Your task to perform on an android device: Open ESPN.com Image 0: 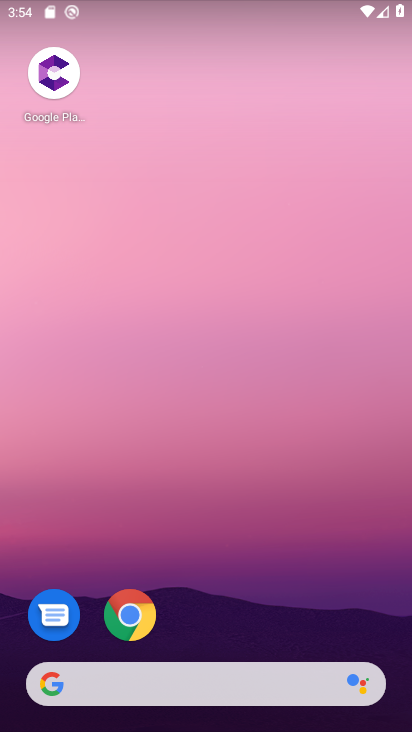
Step 0: click (125, 633)
Your task to perform on an android device: Open ESPN.com Image 1: 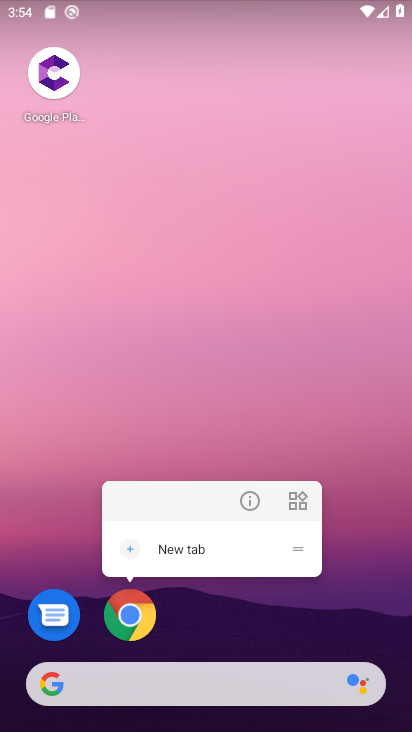
Step 1: click (125, 633)
Your task to perform on an android device: Open ESPN.com Image 2: 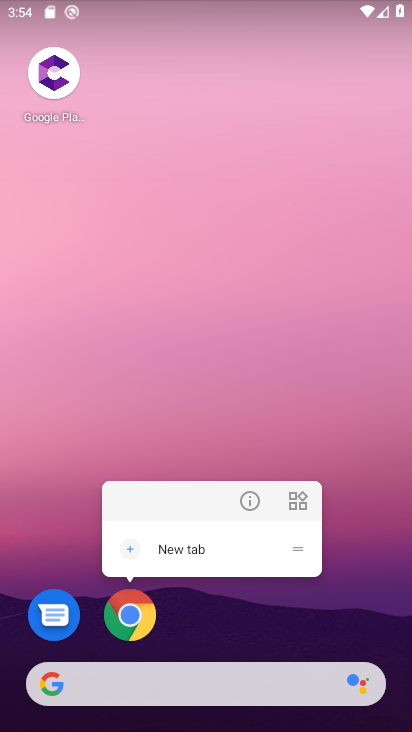
Step 2: click (132, 628)
Your task to perform on an android device: Open ESPN.com Image 3: 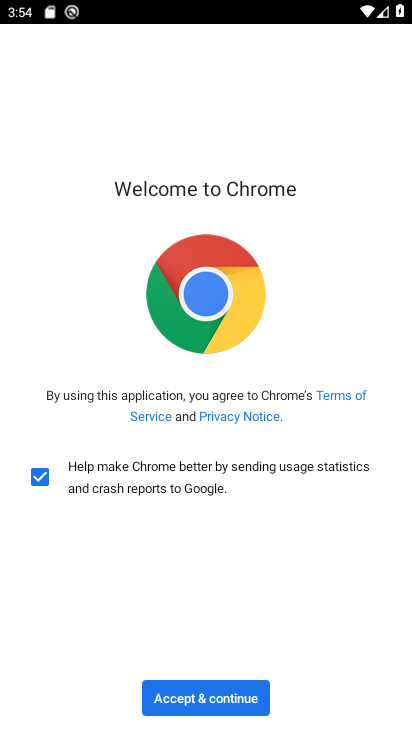
Step 3: click (255, 696)
Your task to perform on an android device: Open ESPN.com Image 4: 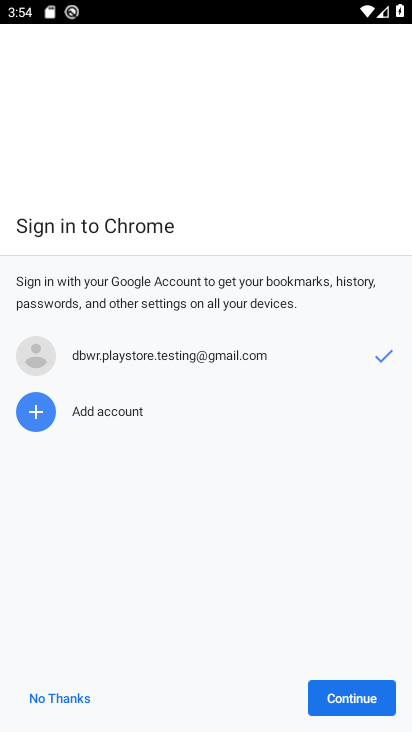
Step 4: click (348, 698)
Your task to perform on an android device: Open ESPN.com Image 5: 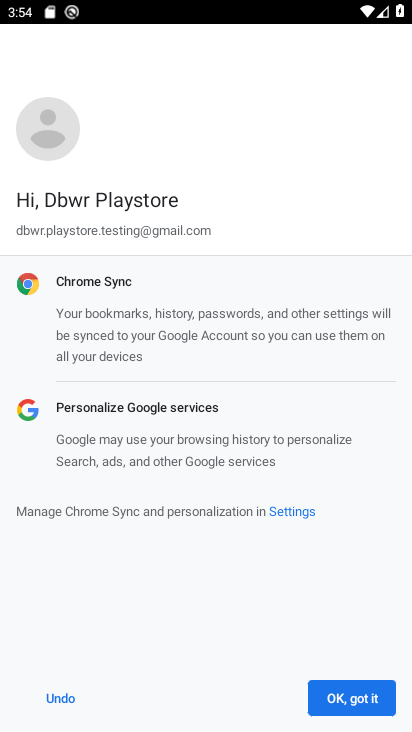
Step 5: click (348, 698)
Your task to perform on an android device: Open ESPN.com Image 6: 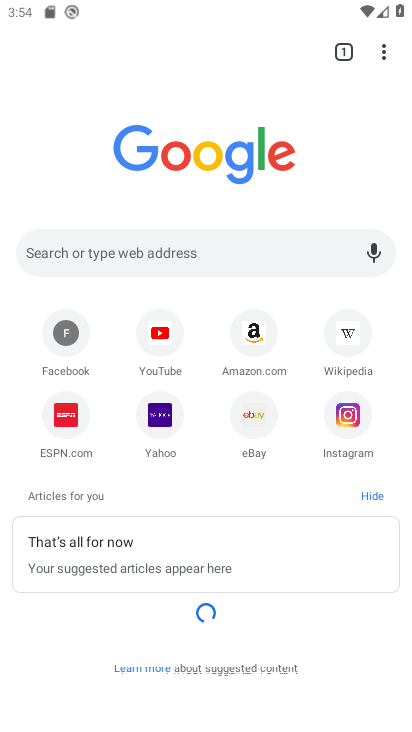
Step 6: click (61, 428)
Your task to perform on an android device: Open ESPN.com Image 7: 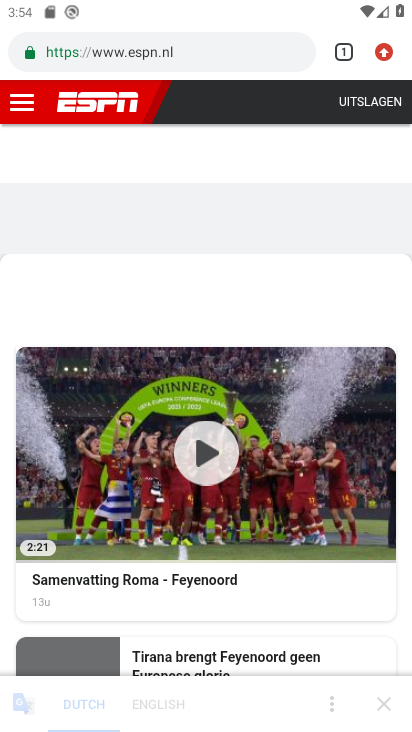
Step 7: task complete